Your task to perform on an android device: toggle wifi Image 0: 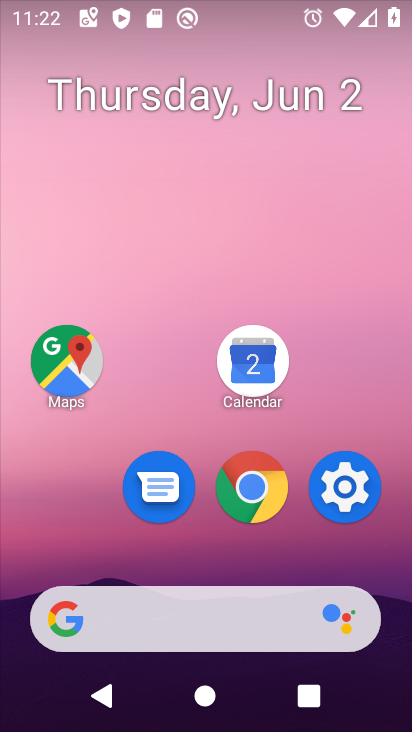
Step 0: drag from (273, 653) to (194, 30)
Your task to perform on an android device: toggle wifi Image 1: 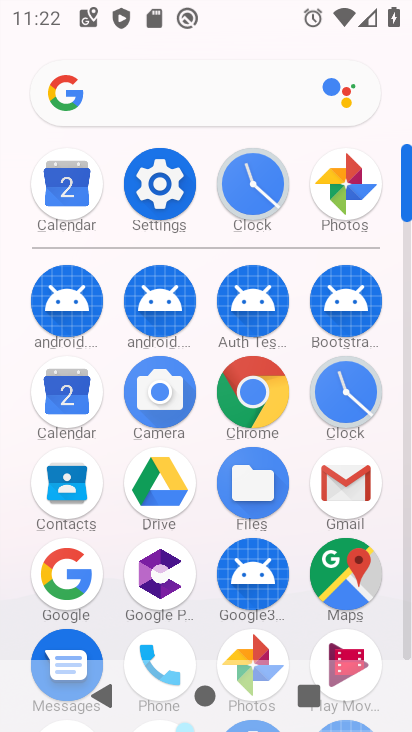
Step 1: click (164, 198)
Your task to perform on an android device: toggle wifi Image 2: 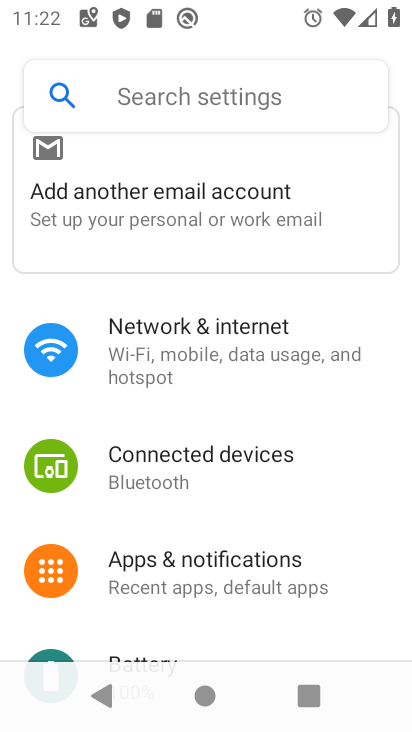
Step 2: click (183, 332)
Your task to perform on an android device: toggle wifi Image 3: 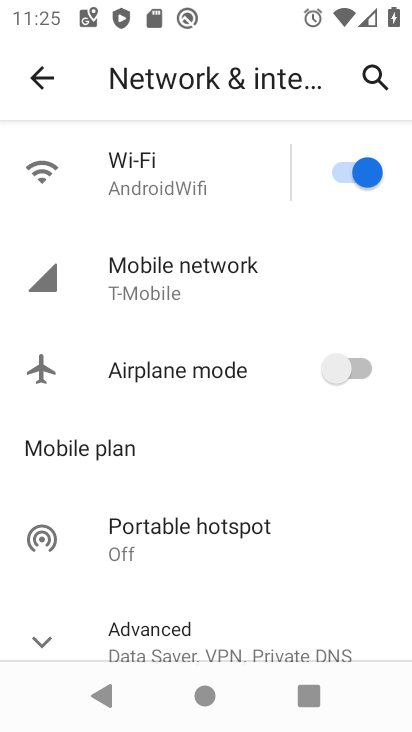
Step 3: task complete